Your task to perform on an android device: Check the news Image 0: 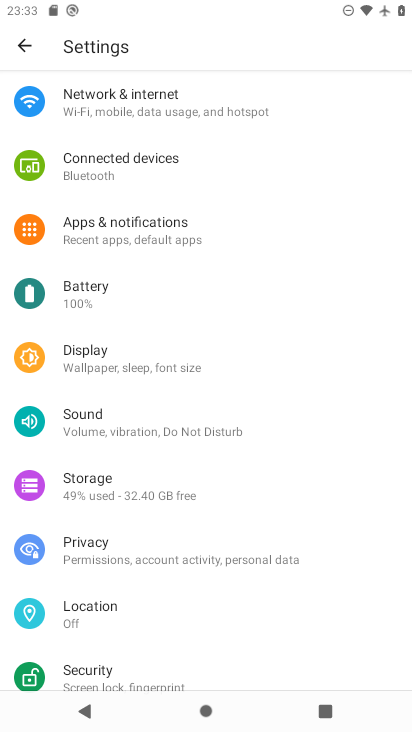
Step 0: press home button
Your task to perform on an android device: Check the news Image 1: 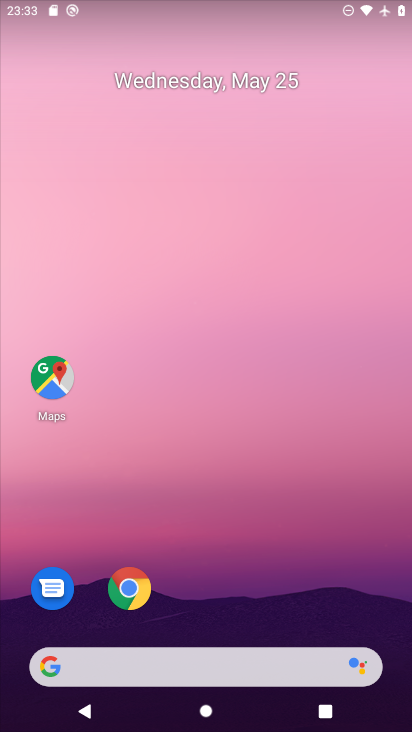
Step 1: click (130, 585)
Your task to perform on an android device: Check the news Image 2: 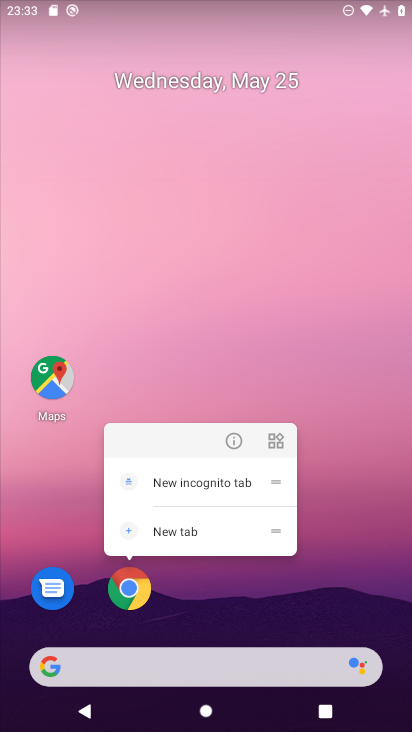
Step 2: click (128, 588)
Your task to perform on an android device: Check the news Image 3: 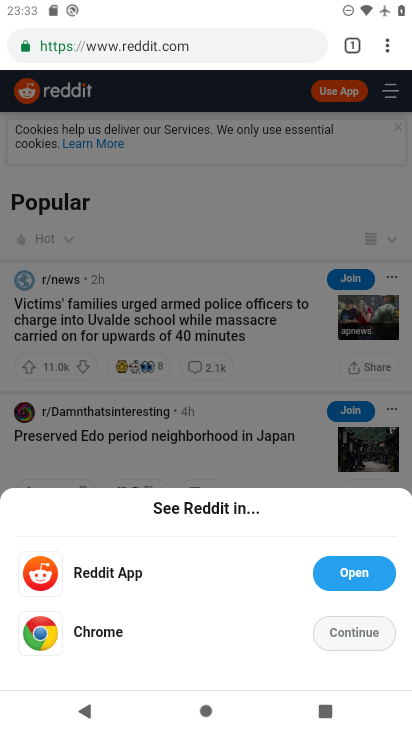
Step 3: click (234, 48)
Your task to perform on an android device: Check the news Image 4: 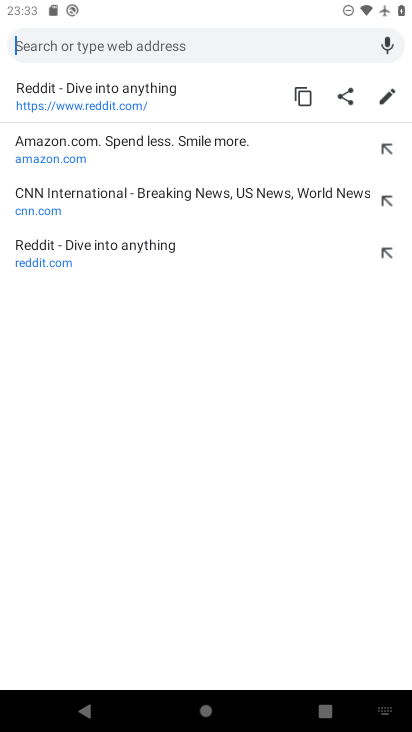
Step 4: type "news"
Your task to perform on an android device: Check the news Image 5: 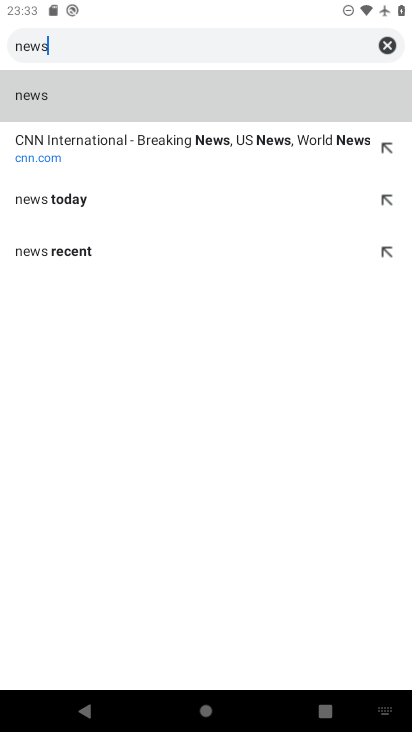
Step 5: click (34, 94)
Your task to perform on an android device: Check the news Image 6: 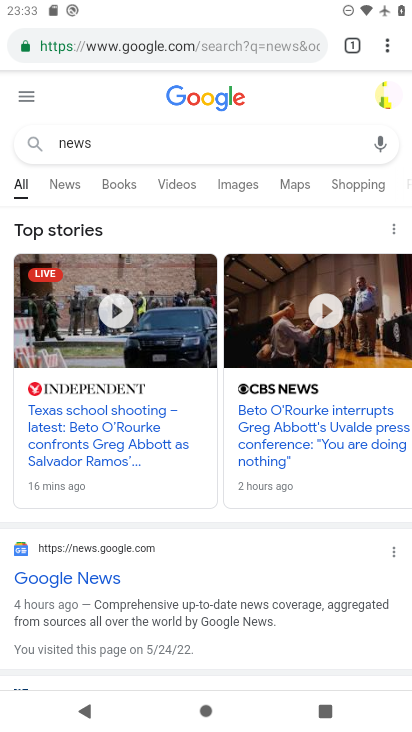
Step 6: click (70, 189)
Your task to perform on an android device: Check the news Image 7: 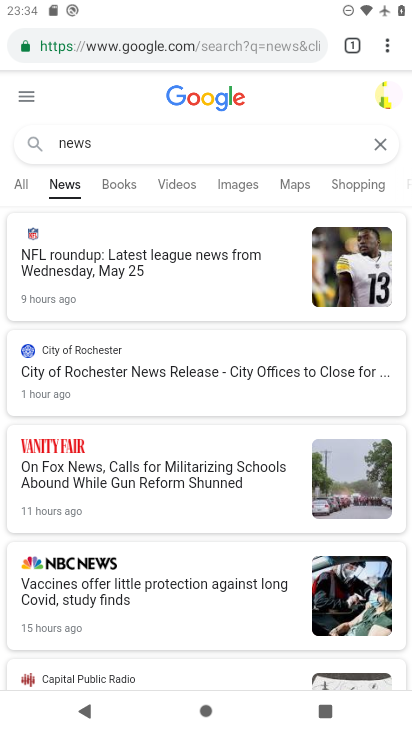
Step 7: task complete